Your task to perform on an android device: Open Youtube and go to "Your channel" Image 0: 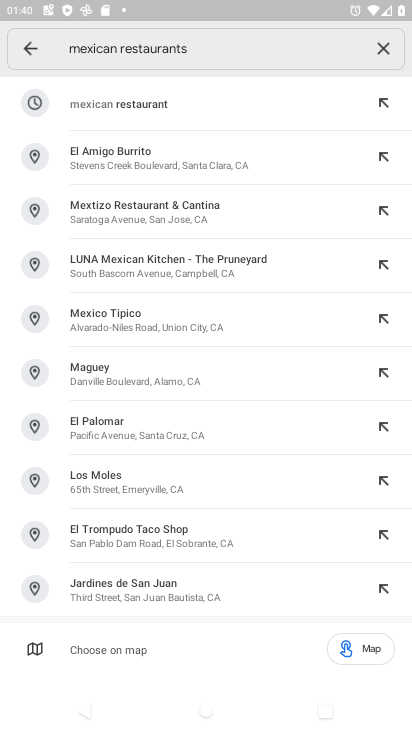
Step 0: press home button
Your task to perform on an android device: Open Youtube and go to "Your channel" Image 1: 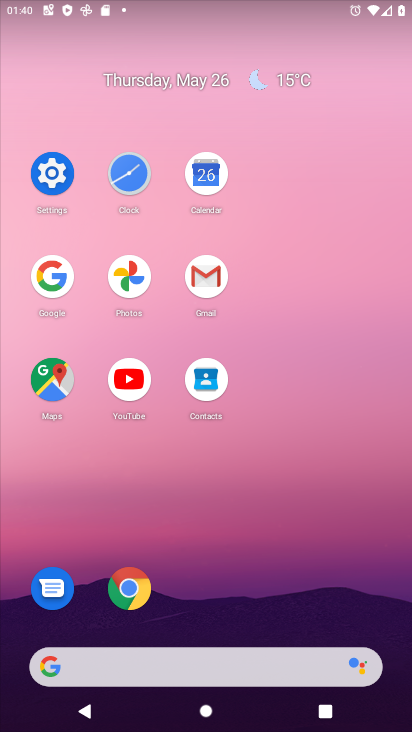
Step 1: click (124, 383)
Your task to perform on an android device: Open Youtube and go to "Your channel" Image 2: 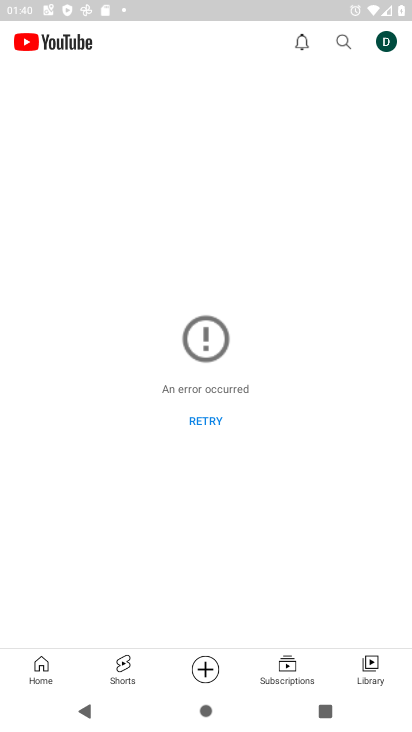
Step 2: click (395, 37)
Your task to perform on an android device: Open Youtube and go to "Your channel" Image 3: 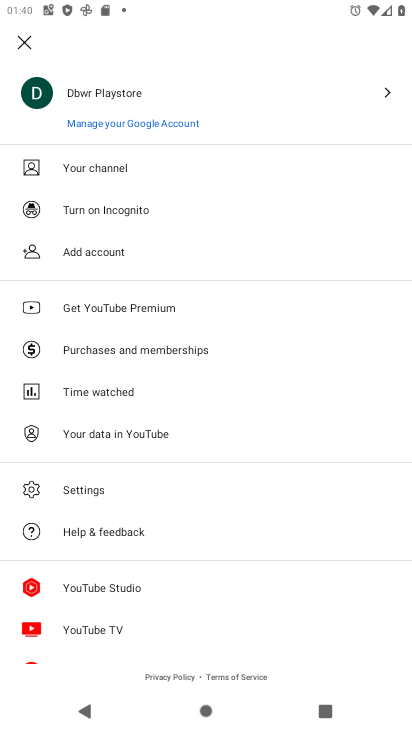
Step 3: click (120, 167)
Your task to perform on an android device: Open Youtube and go to "Your channel" Image 4: 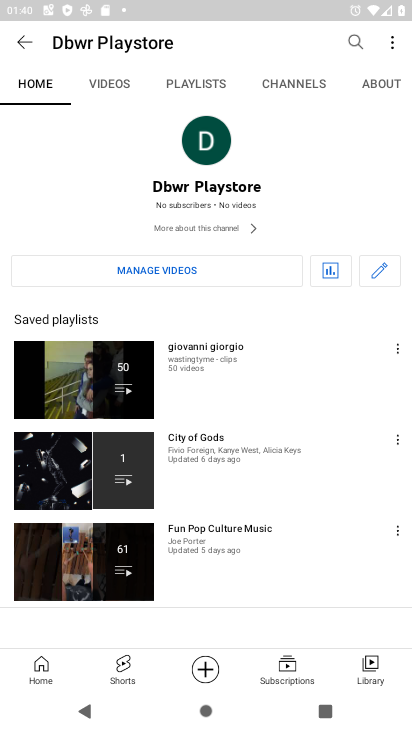
Step 4: task complete